Your task to perform on an android device: Search for vegetarian restaurants on Maps Image 0: 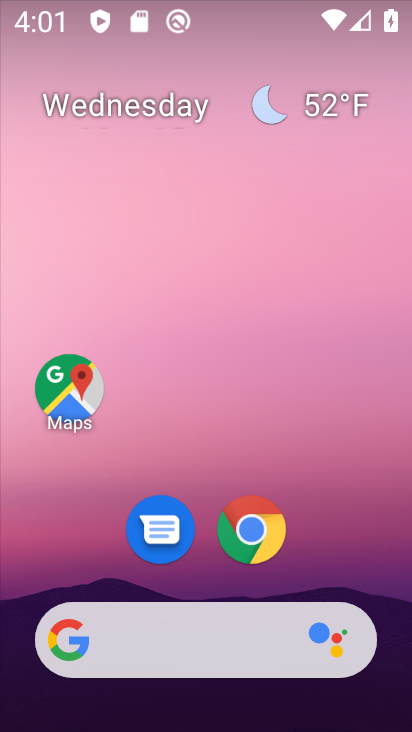
Step 0: click (71, 389)
Your task to perform on an android device: Search for vegetarian restaurants on Maps Image 1: 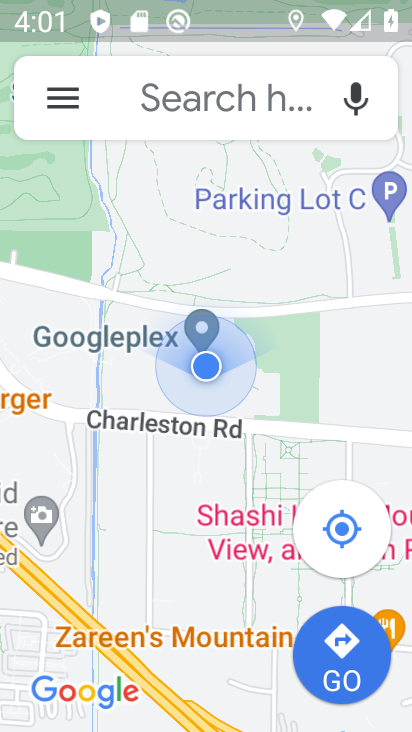
Step 1: click (163, 106)
Your task to perform on an android device: Search for vegetarian restaurants on Maps Image 2: 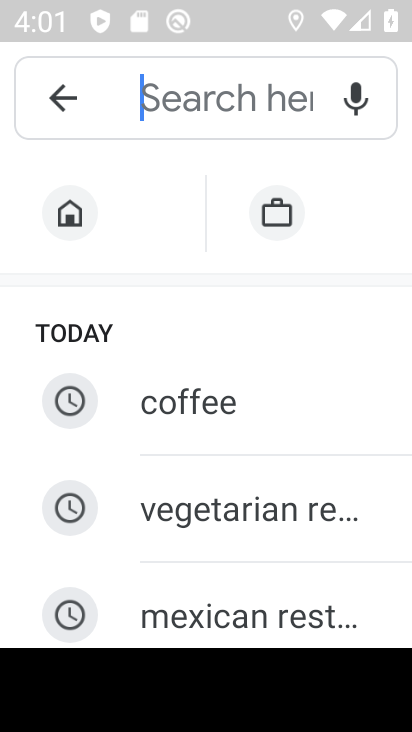
Step 2: type "vegetarian restaurants"
Your task to perform on an android device: Search for vegetarian restaurants on Maps Image 3: 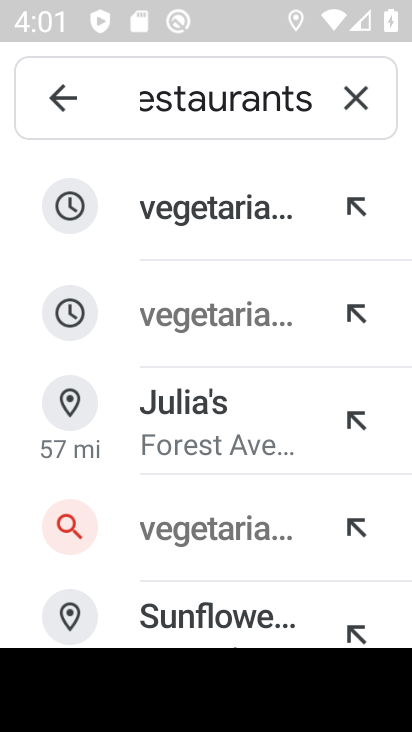
Step 3: click (228, 214)
Your task to perform on an android device: Search for vegetarian restaurants on Maps Image 4: 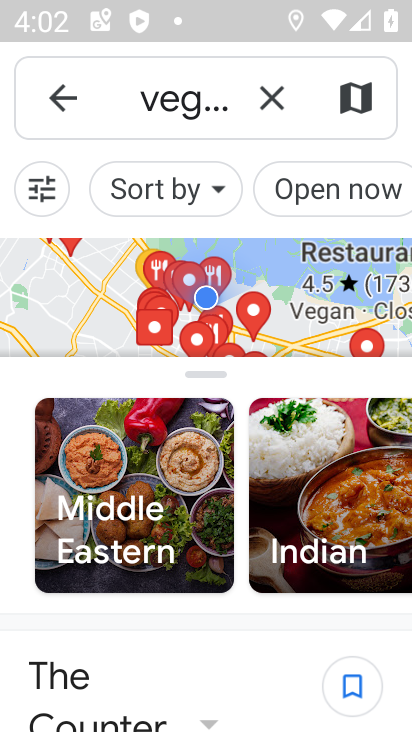
Step 4: task complete